Your task to perform on an android device: Go to internet settings Image 0: 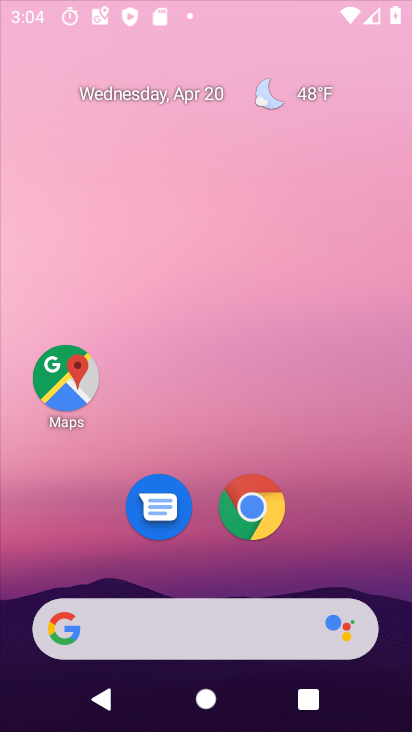
Step 0: click (250, 536)
Your task to perform on an android device: Go to internet settings Image 1: 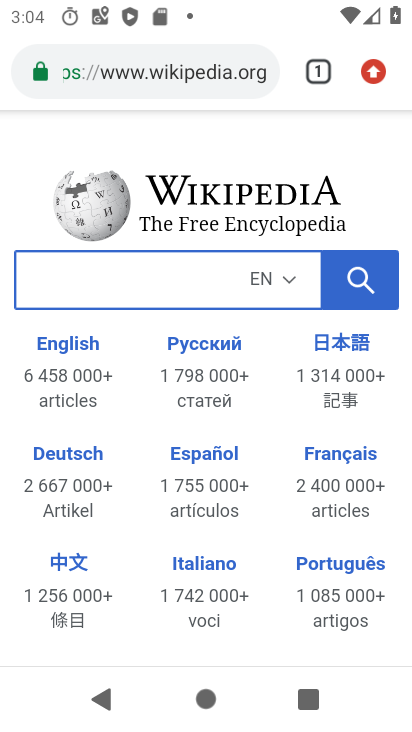
Step 1: press home button
Your task to perform on an android device: Go to internet settings Image 2: 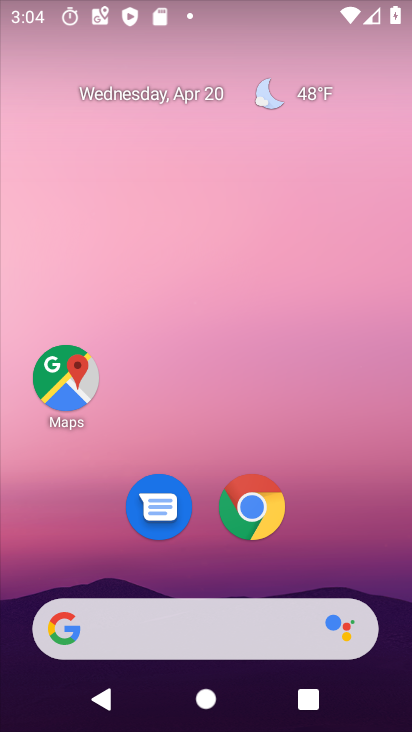
Step 2: drag from (204, 607) to (153, 3)
Your task to perform on an android device: Go to internet settings Image 3: 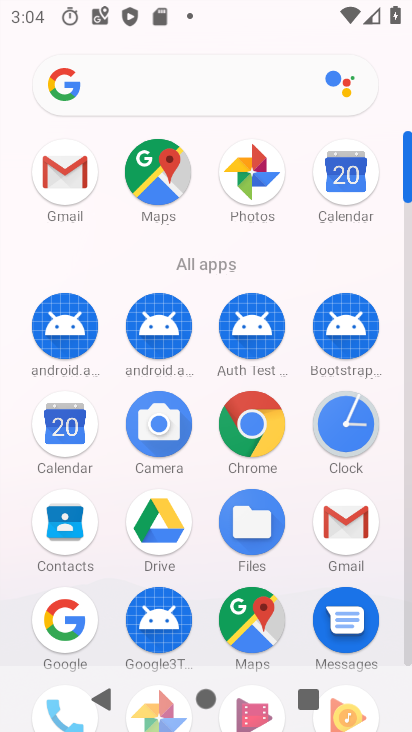
Step 3: drag from (297, 599) to (264, 129)
Your task to perform on an android device: Go to internet settings Image 4: 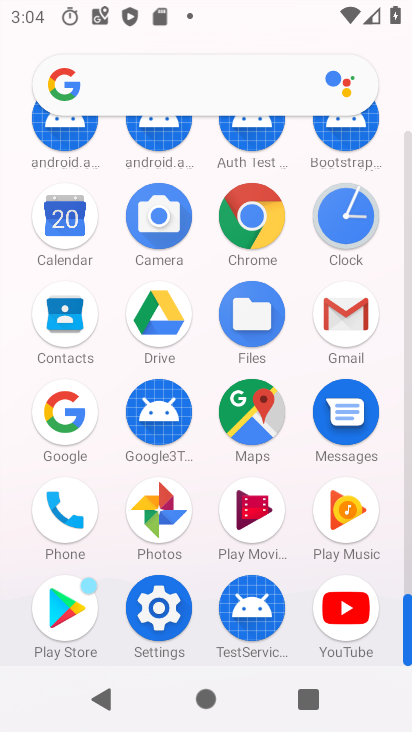
Step 4: click (177, 591)
Your task to perform on an android device: Go to internet settings Image 5: 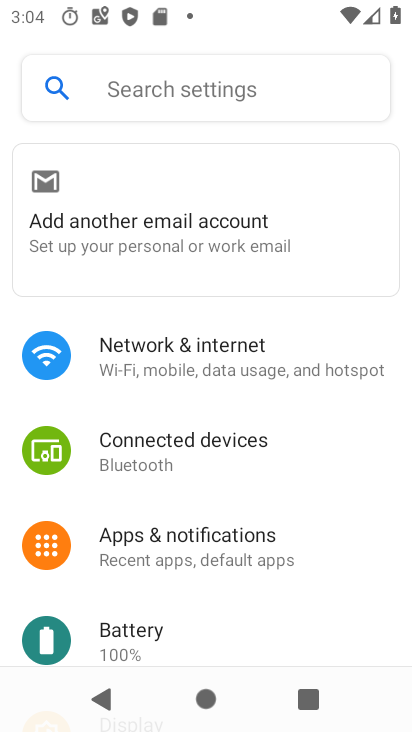
Step 5: click (200, 384)
Your task to perform on an android device: Go to internet settings Image 6: 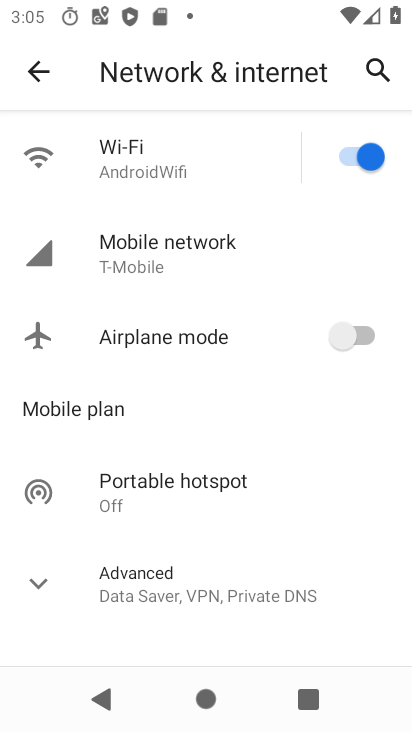
Step 6: task complete